Your task to perform on an android device: turn off notifications settings in the gmail app Image 0: 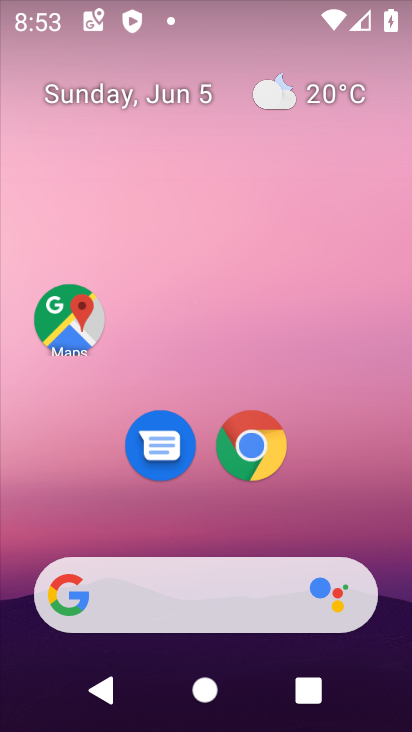
Step 0: drag from (309, 574) to (297, 7)
Your task to perform on an android device: turn off notifications settings in the gmail app Image 1: 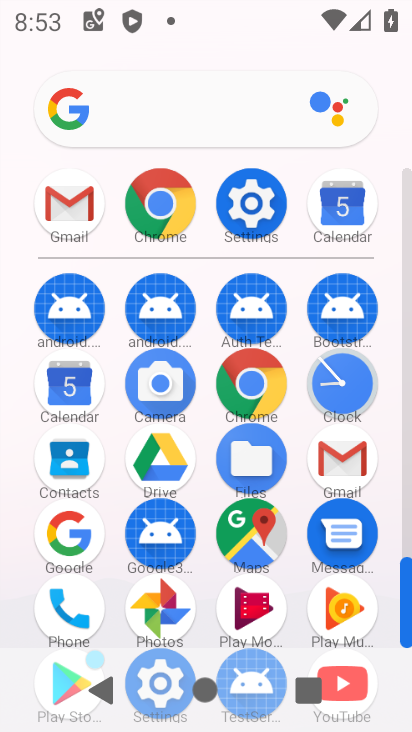
Step 1: click (342, 453)
Your task to perform on an android device: turn off notifications settings in the gmail app Image 2: 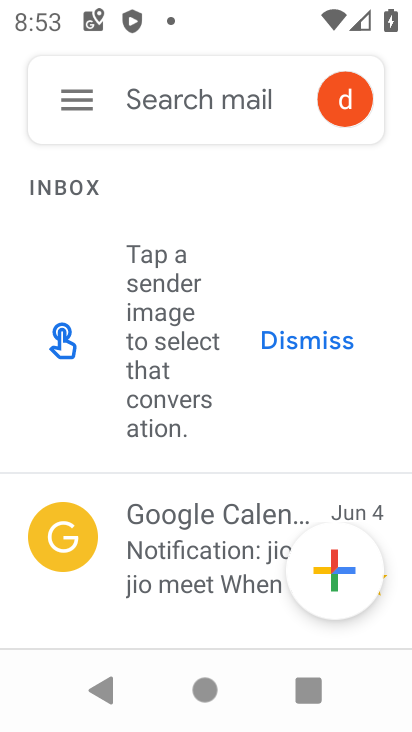
Step 2: click (77, 87)
Your task to perform on an android device: turn off notifications settings in the gmail app Image 3: 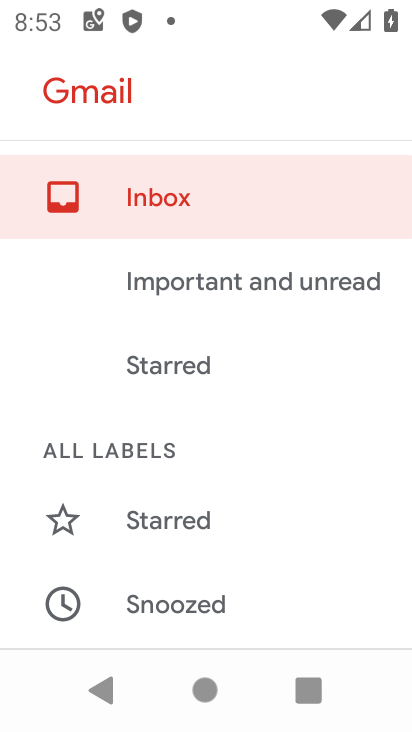
Step 3: drag from (237, 587) to (269, 3)
Your task to perform on an android device: turn off notifications settings in the gmail app Image 4: 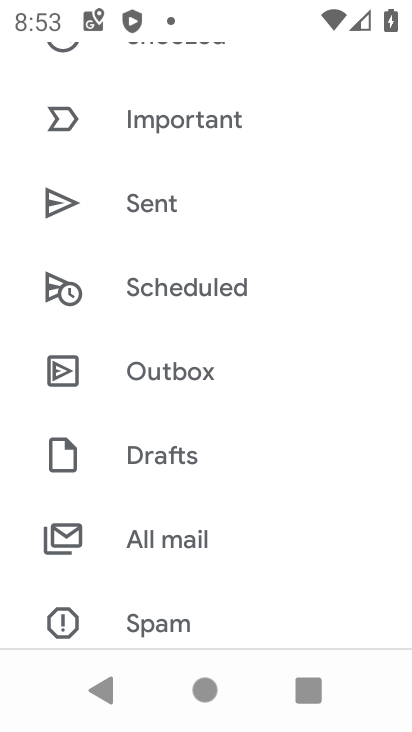
Step 4: drag from (285, 575) to (312, 124)
Your task to perform on an android device: turn off notifications settings in the gmail app Image 5: 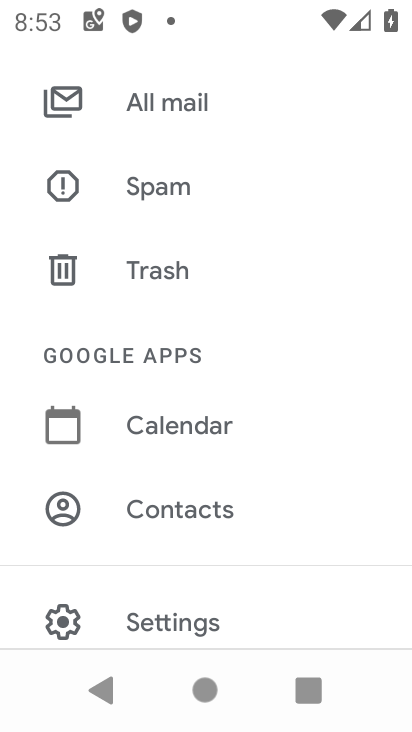
Step 5: drag from (201, 226) to (193, 583)
Your task to perform on an android device: turn off notifications settings in the gmail app Image 6: 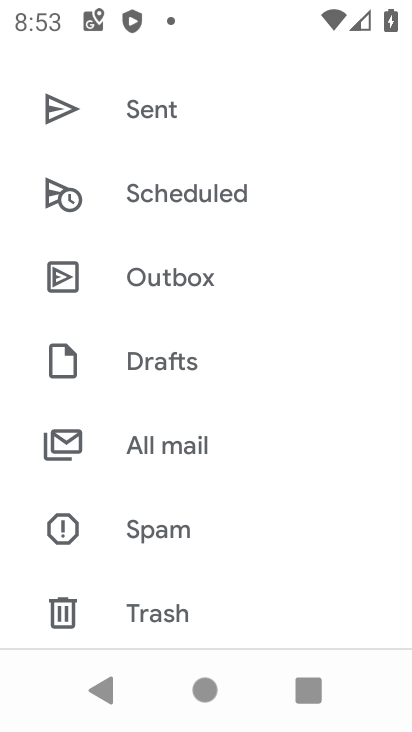
Step 6: drag from (241, 576) to (279, 26)
Your task to perform on an android device: turn off notifications settings in the gmail app Image 7: 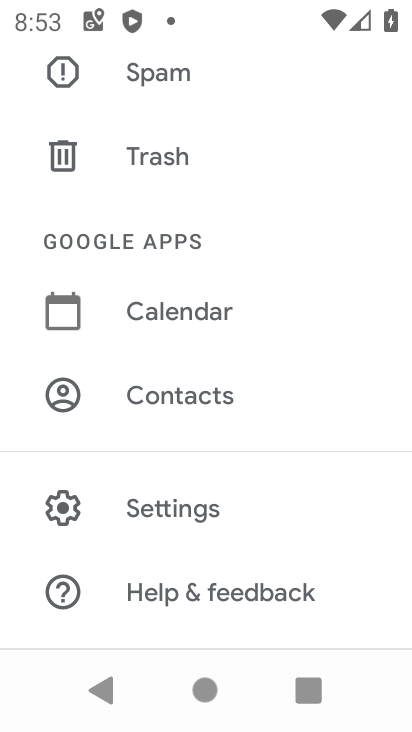
Step 7: click (221, 496)
Your task to perform on an android device: turn off notifications settings in the gmail app Image 8: 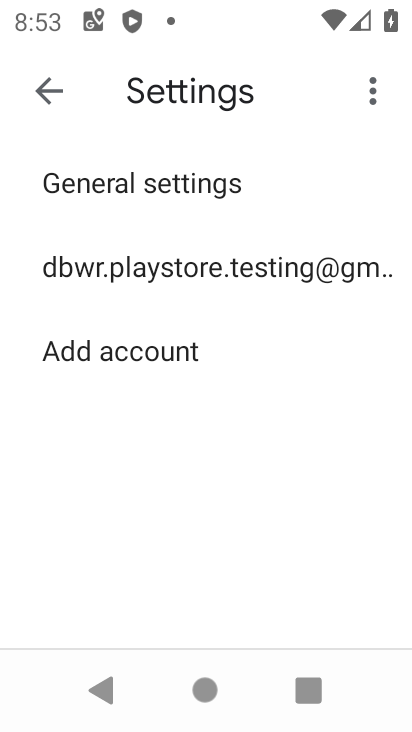
Step 8: click (176, 265)
Your task to perform on an android device: turn off notifications settings in the gmail app Image 9: 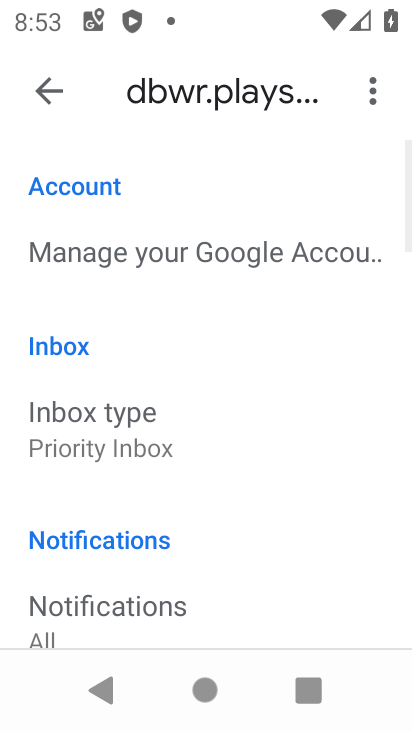
Step 9: drag from (250, 528) to (303, 94)
Your task to perform on an android device: turn off notifications settings in the gmail app Image 10: 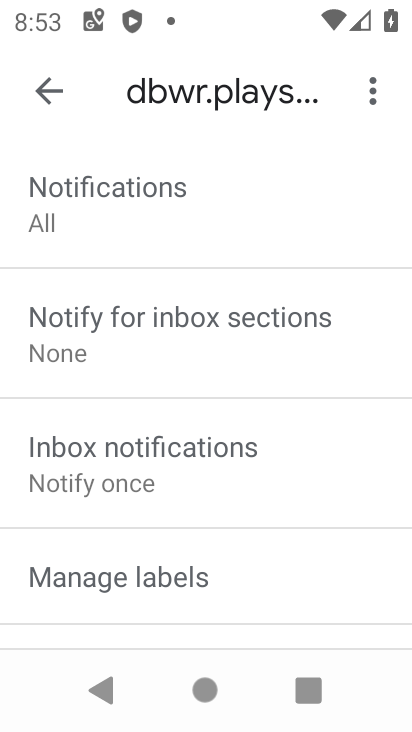
Step 10: drag from (274, 595) to (278, 325)
Your task to perform on an android device: turn off notifications settings in the gmail app Image 11: 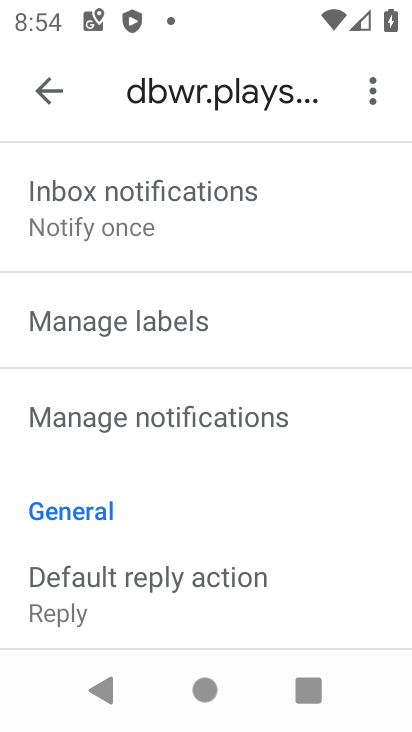
Step 11: click (240, 393)
Your task to perform on an android device: turn off notifications settings in the gmail app Image 12: 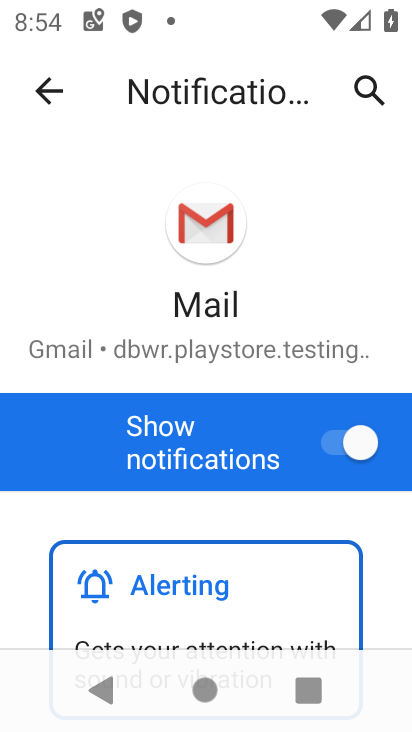
Step 12: click (360, 436)
Your task to perform on an android device: turn off notifications settings in the gmail app Image 13: 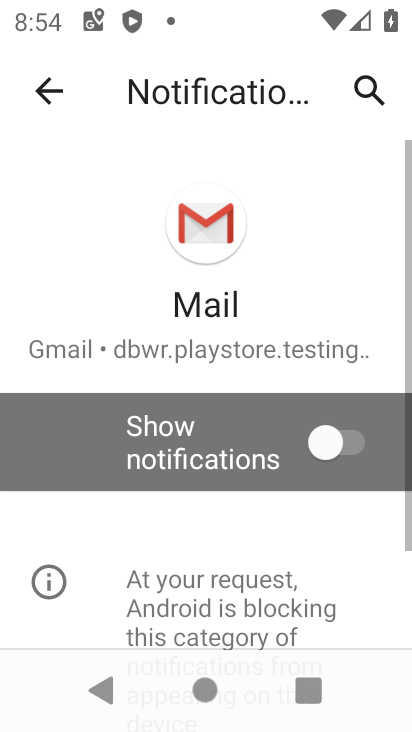
Step 13: task complete